Your task to perform on an android device: What's the news in Guyana? Image 0: 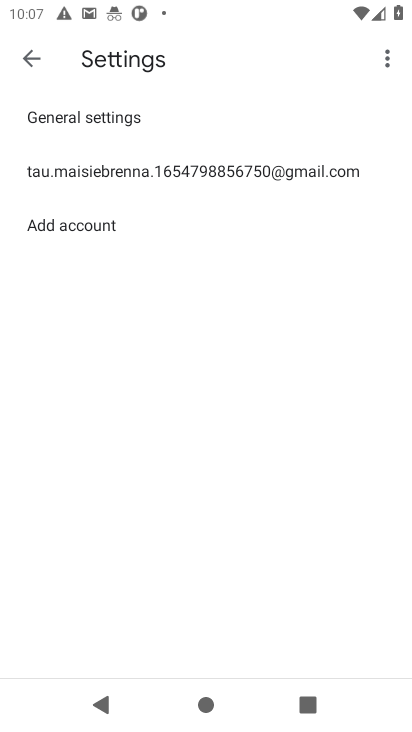
Step 0: press home button
Your task to perform on an android device: What's the news in Guyana? Image 1: 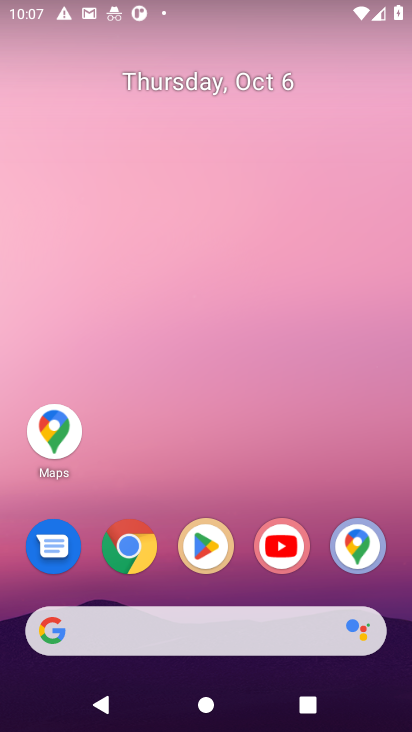
Step 1: click (125, 550)
Your task to perform on an android device: What's the news in Guyana? Image 2: 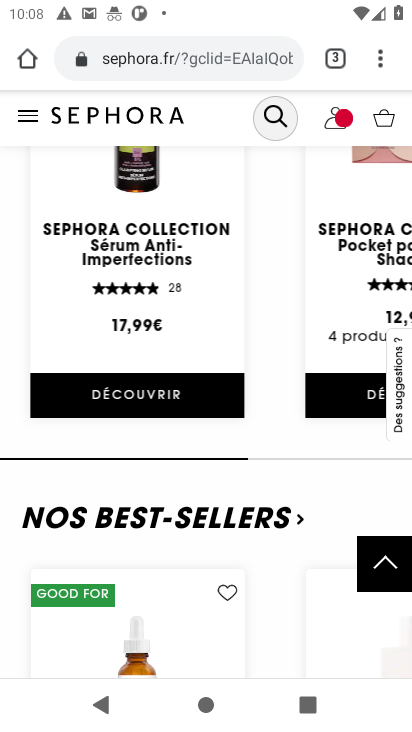
Step 2: click (179, 38)
Your task to perform on an android device: What's the news in Guyana? Image 3: 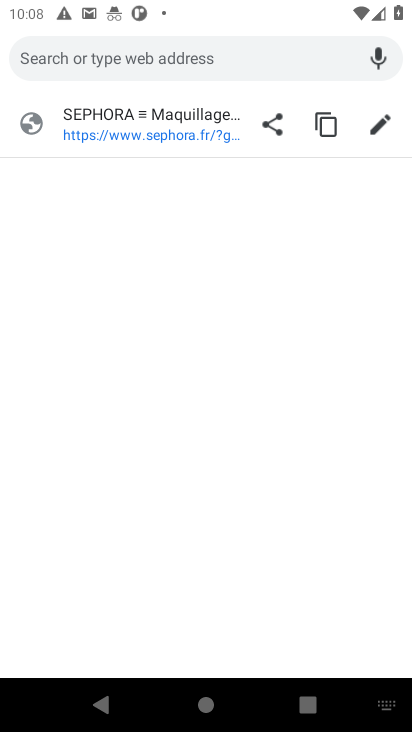
Step 3: type "news in Guyana"
Your task to perform on an android device: What's the news in Guyana? Image 4: 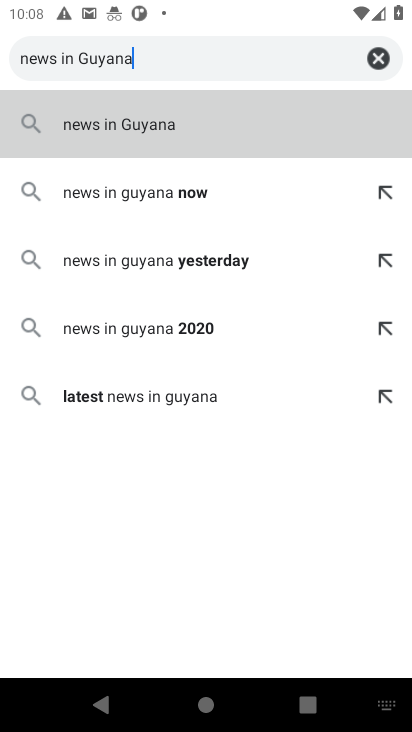
Step 4: click (95, 126)
Your task to perform on an android device: What's the news in Guyana? Image 5: 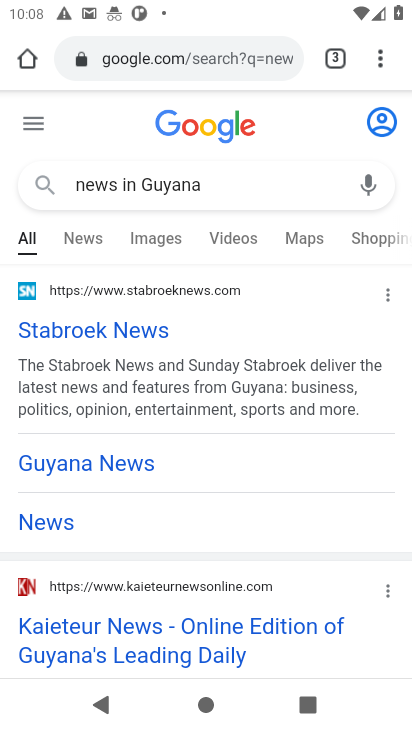
Step 5: click (91, 473)
Your task to perform on an android device: What's the news in Guyana? Image 6: 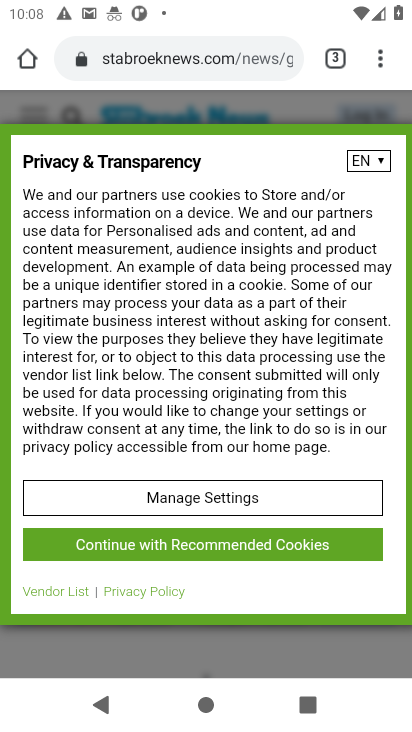
Step 6: click (218, 542)
Your task to perform on an android device: What's the news in Guyana? Image 7: 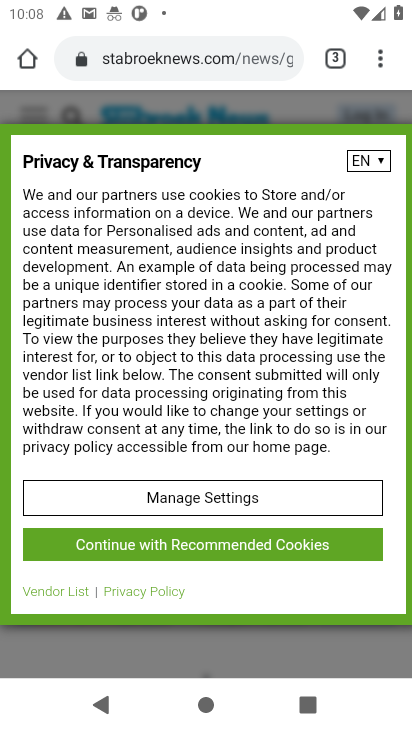
Step 7: click (218, 542)
Your task to perform on an android device: What's the news in Guyana? Image 8: 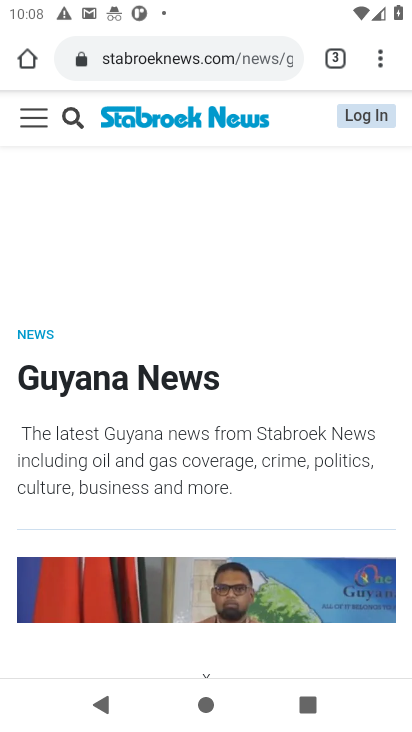
Step 8: task complete